Your task to perform on an android device: Open the Play Movies app and select the watchlist tab. Image 0: 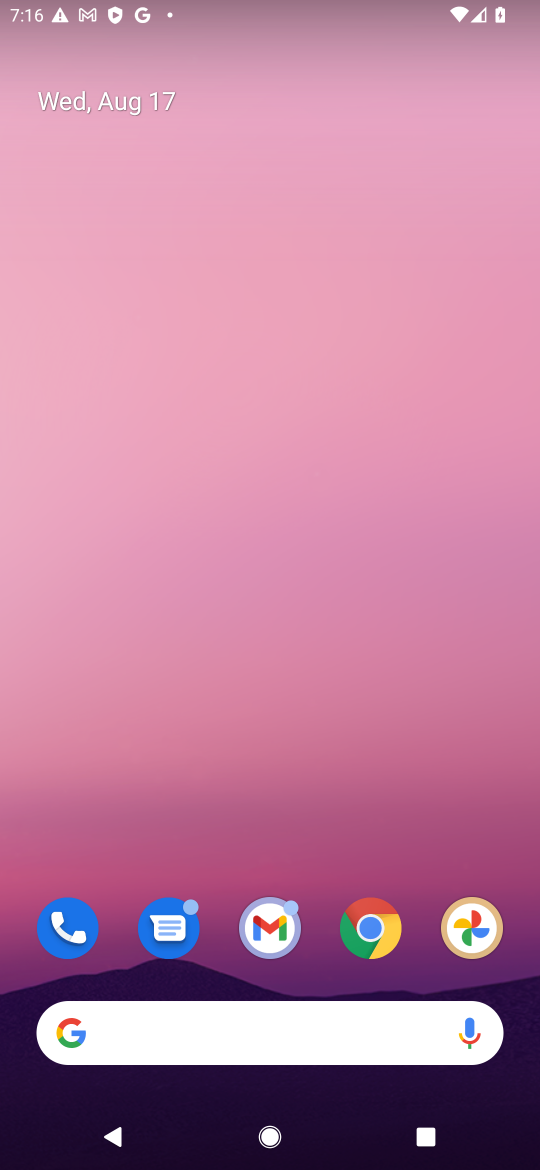
Step 0: drag from (308, 1045) to (272, 21)
Your task to perform on an android device: Open the Play Movies app and select the watchlist tab. Image 1: 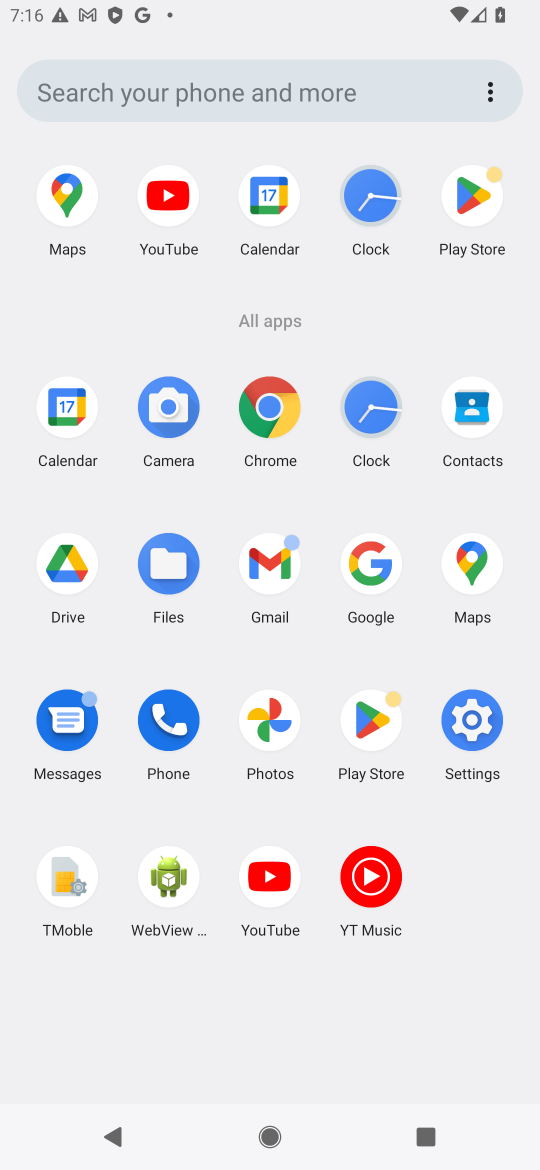
Step 1: task complete